Your task to perform on an android device: Show me productivity apps on the Play Store Image 0: 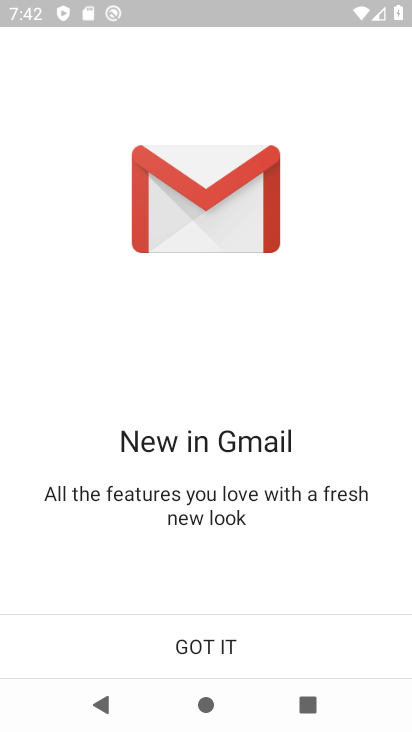
Step 0: click (215, 649)
Your task to perform on an android device: Show me productivity apps on the Play Store Image 1: 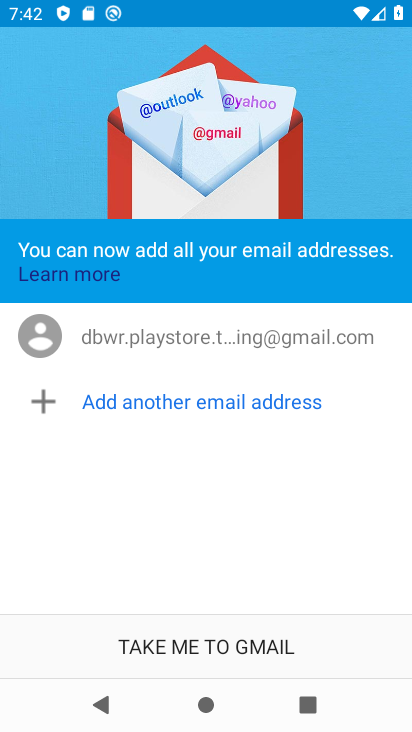
Step 1: press home button
Your task to perform on an android device: Show me productivity apps on the Play Store Image 2: 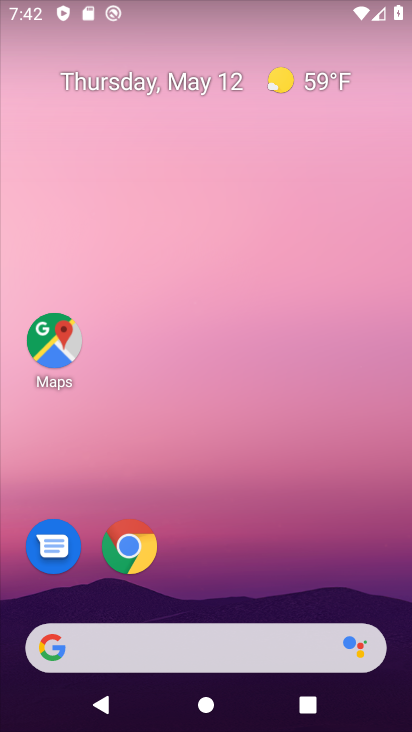
Step 2: drag from (368, 490) to (230, 28)
Your task to perform on an android device: Show me productivity apps on the Play Store Image 3: 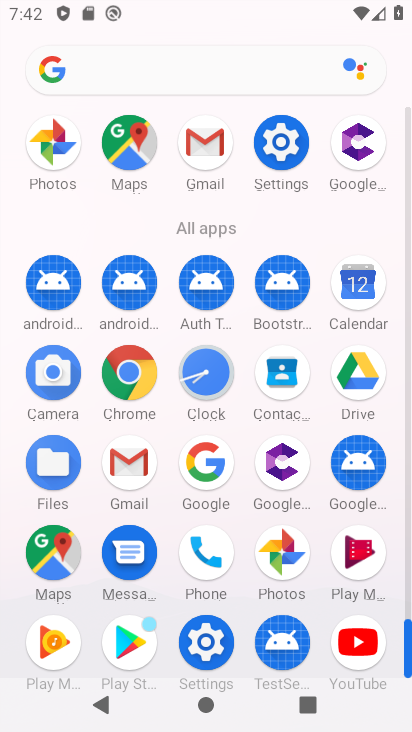
Step 3: click (138, 624)
Your task to perform on an android device: Show me productivity apps on the Play Store Image 4: 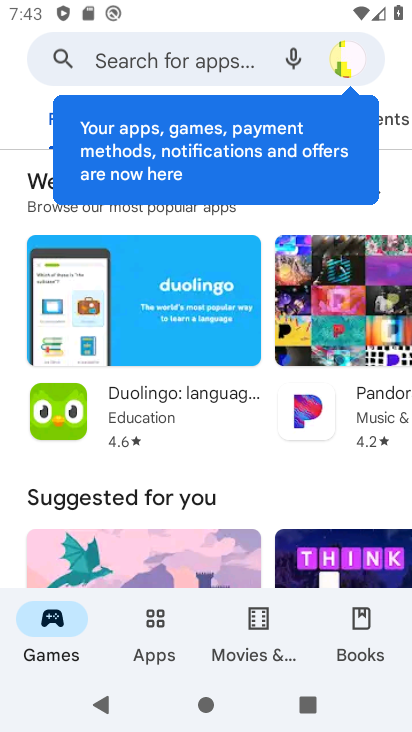
Step 4: click (220, 443)
Your task to perform on an android device: Show me productivity apps on the Play Store Image 5: 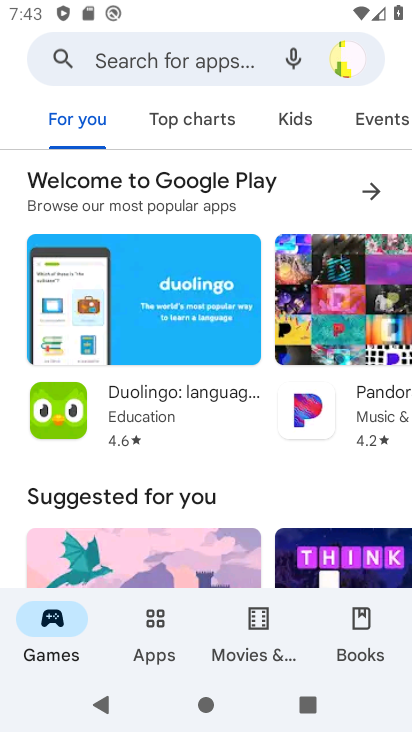
Step 5: click (154, 620)
Your task to perform on an android device: Show me productivity apps on the Play Store Image 6: 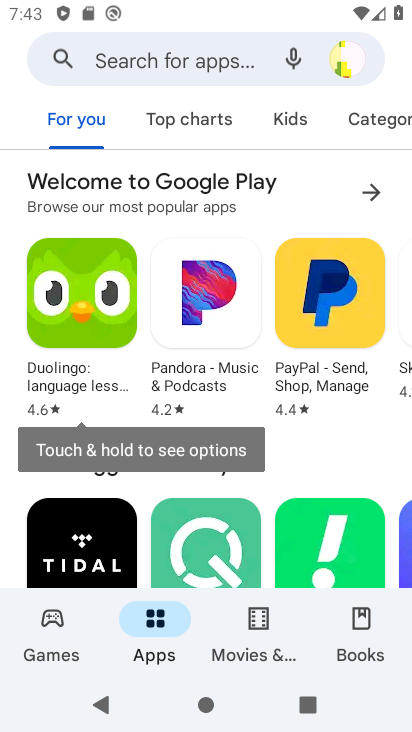
Step 6: drag from (330, 112) to (254, 115)
Your task to perform on an android device: Show me productivity apps on the Play Store Image 7: 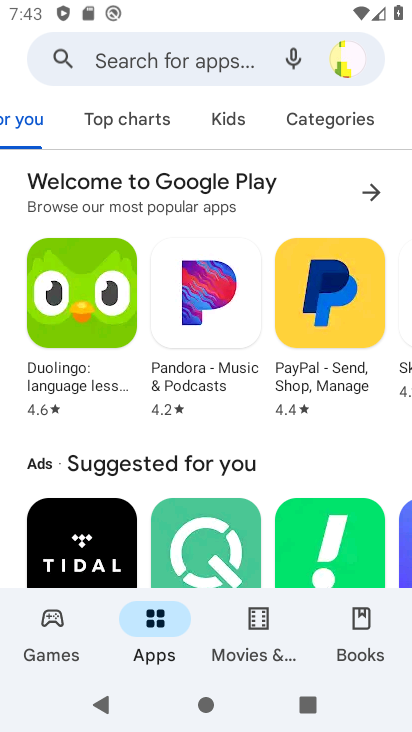
Step 7: click (295, 119)
Your task to perform on an android device: Show me productivity apps on the Play Store Image 8: 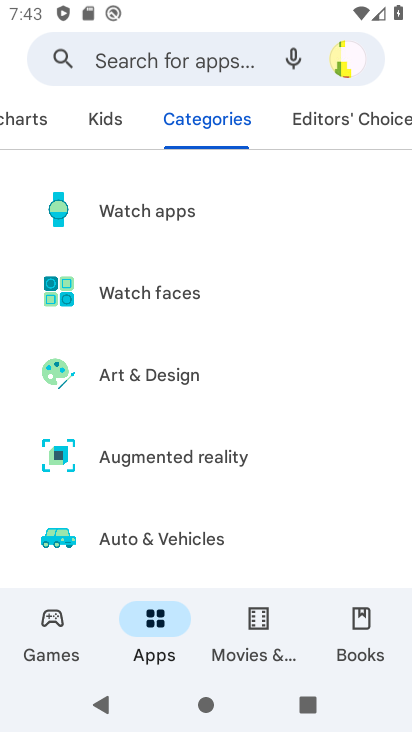
Step 8: drag from (230, 524) to (161, 261)
Your task to perform on an android device: Show me productivity apps on the Play Store Image 9: 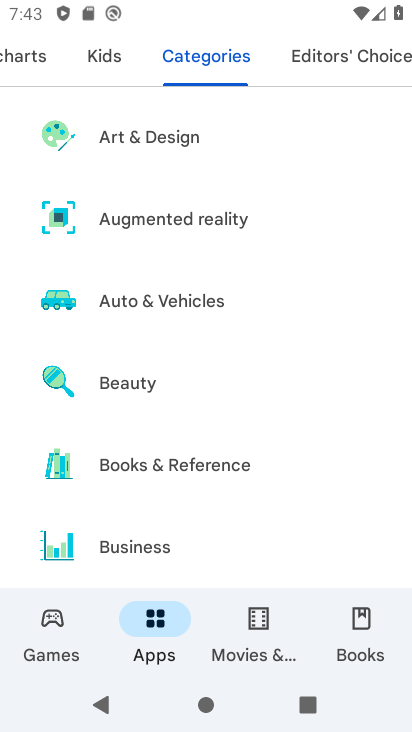
Step 9: drag from (209, 417) to (148, 172)
Your task to perform on an android device: Show me productivity apps on the Play Store Image 10: 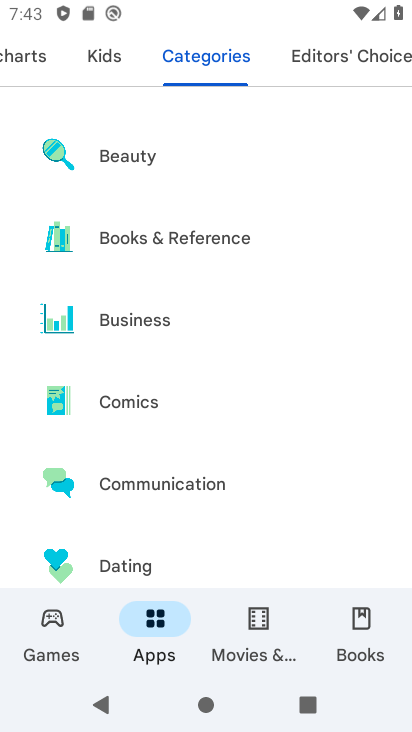
Step 10: drag from (243, 511) to (151, 114)
Your task to perform on an android device: Show me productivity apps on the Play Store Image 11: 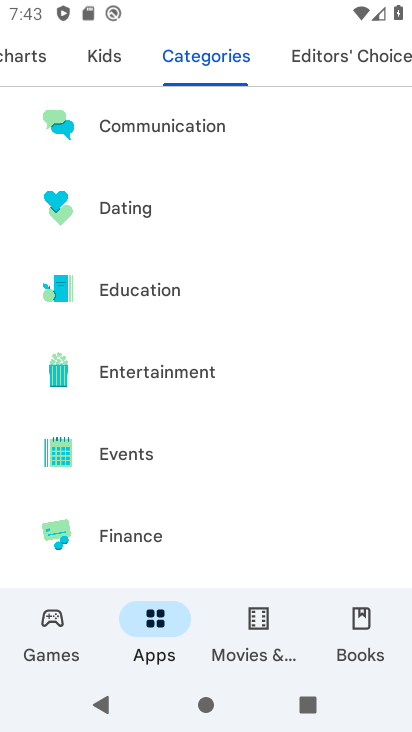
Step 11: drag from (250, 517) to (195, 285)
Your task to perform on an android device: Show me productivity apps on the Play Store Image 12: 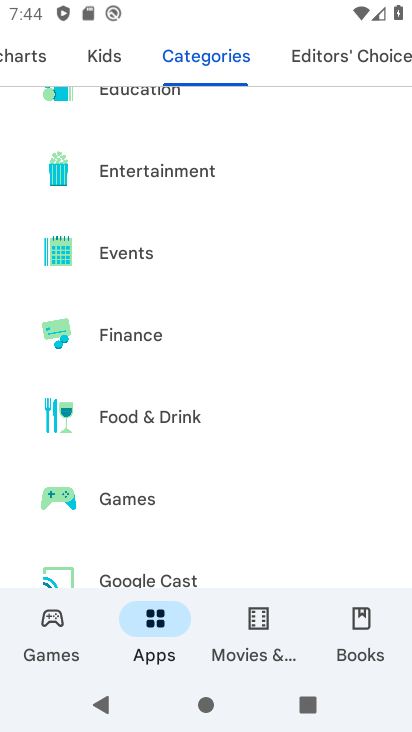
Step 12: drag from (194, 460) to (159, 128)
Your task to perform on an android device: Show me productivity apps on the Play Store Image 13: 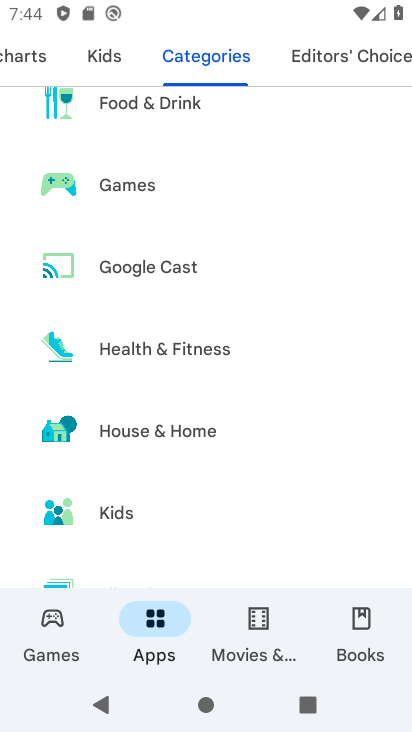
Step 13: drag from (256, 510) to (161, 197)
Your task to perform on an android device: Show me productivity apps on the Play Store Image 14: 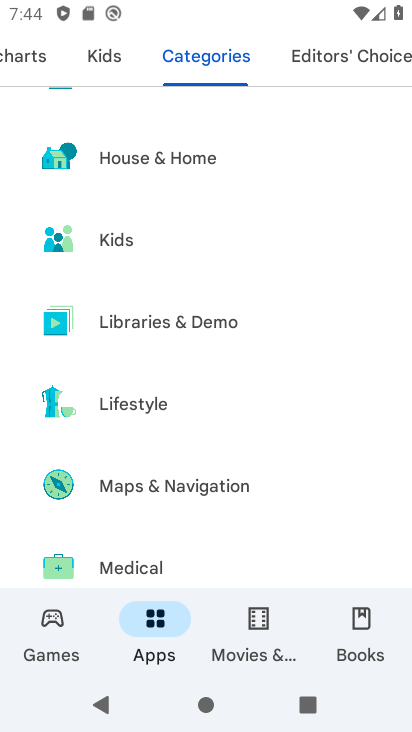
Step 14: drag from (207, 397) to (151, 55)
Your task to perform on an android device: Show me productivity apps on the Play Store Image 15: 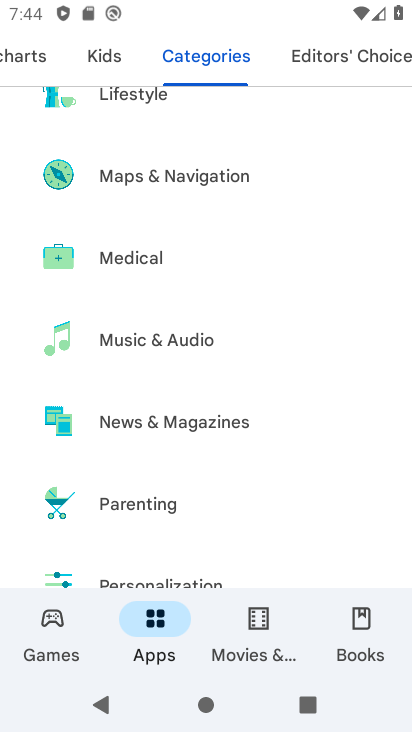
Step 15: drag from (230, 511) to (117, 110)
Your task to perform on an android device: Show me productivity apps on the Play Store Image 16: 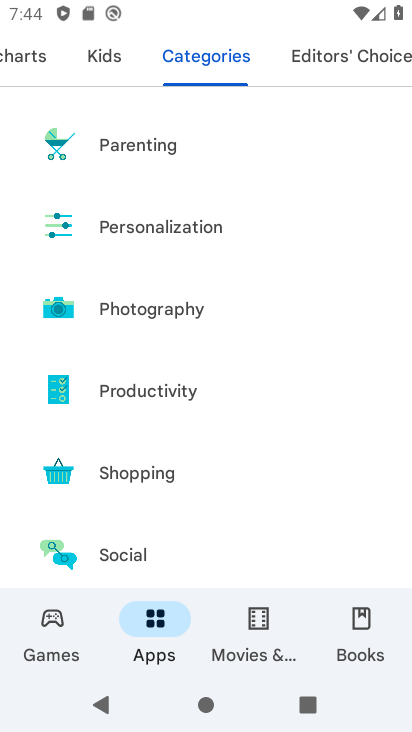
Step 16: click (168, 402)
Your task to perform on an android device: Show me productivity apps on the Play Store Image 17: 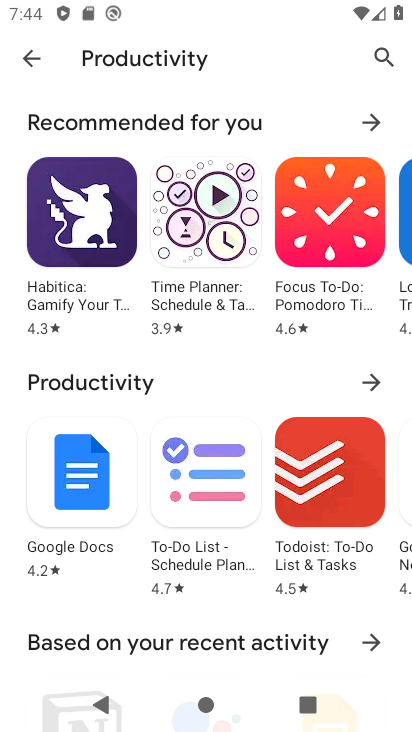
Step 17: task complete